Your task to perform on an android device: add a label to a message in the gmail app Image 0: 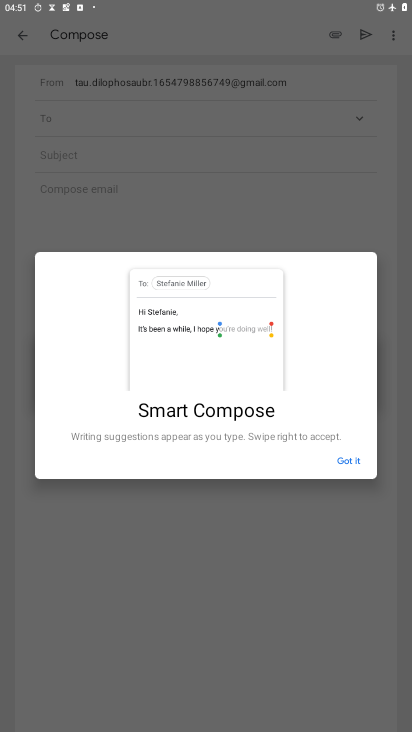
Step 0: press home button
Your task to perform on an android device: add a label to a message in the gmail app Image 1: 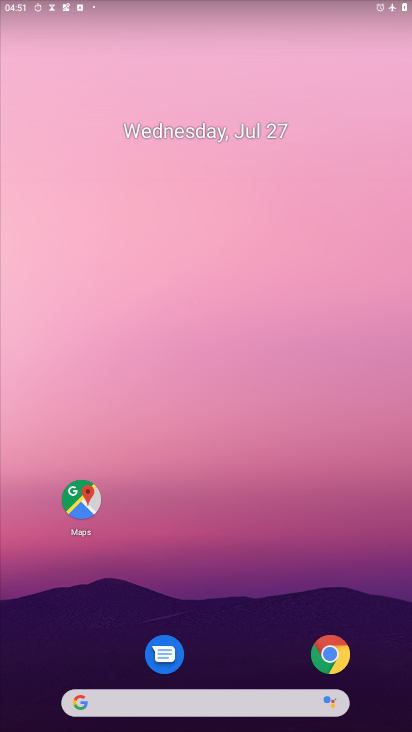
Step 1: drag from (212, 676) to (245, 153)
Your task to perform on an android device: add a label to a message in the gmail app Image 2: 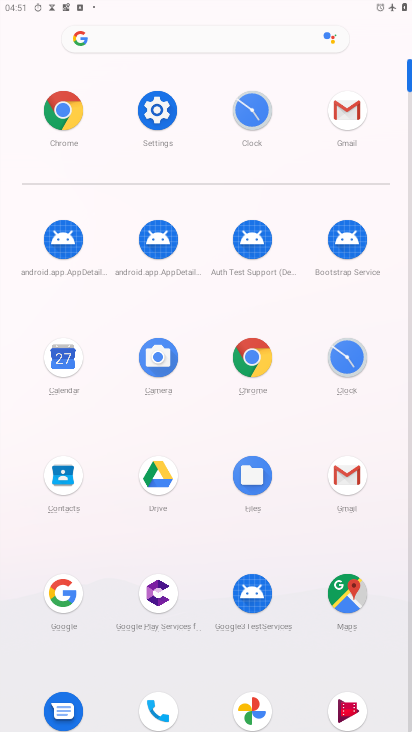
Step 2: click (351, 478)
Your task to perform on an android device: add a label to a message in the gmail app Image 3: 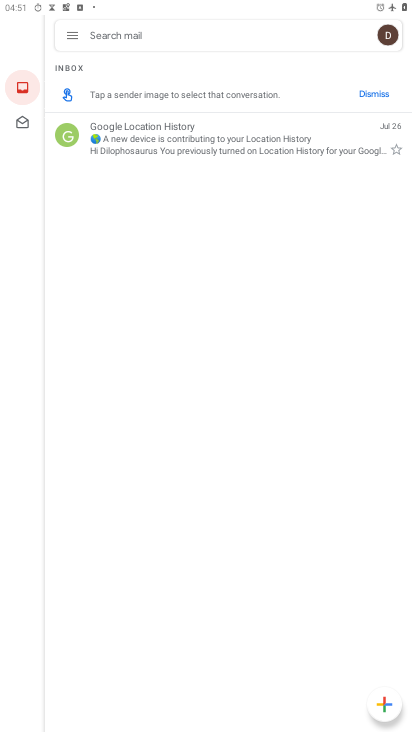
Step 3: click (70, 35)
Your task to perform on an android device: add a label to a message in the gmail app Image 4: 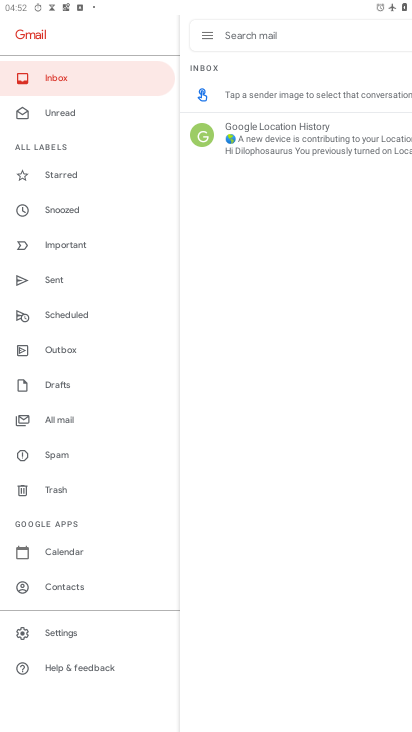
Step 4: click (70, 176)
Your task to perform on an android device: add a label to a message in the gmail app Image 5: 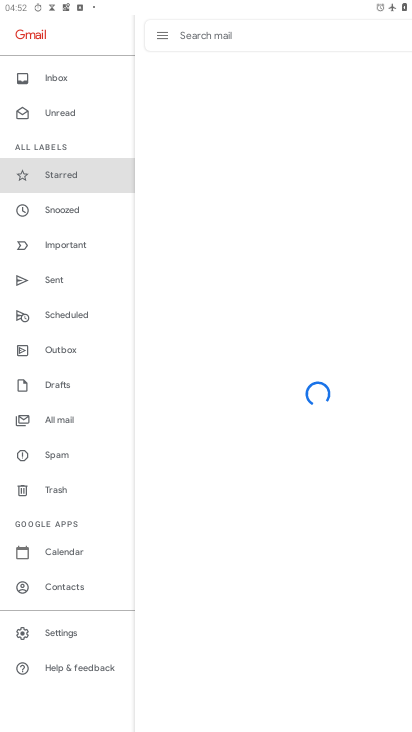
Step 5: task complete